Your task to perform on an android device: Open CNN.com Image 0: 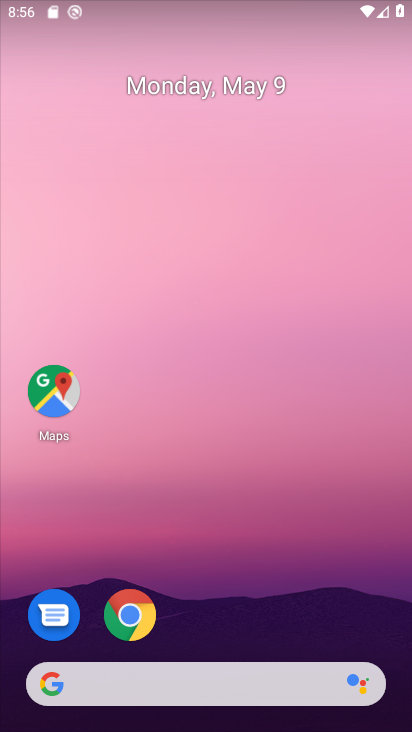
Step 0: drag from (277, 697) to (314, 229)
Your task to perform on an android device: Open CNN.com Image 1: 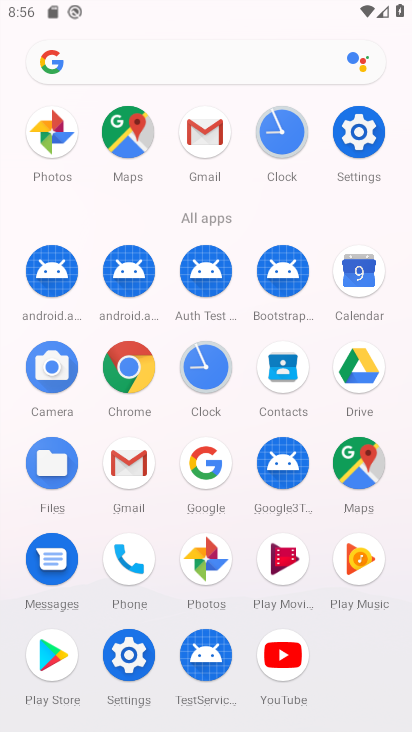
Step 1: click (134, 368)
Your task to perform on an android device: Open CNN.com Image 2: 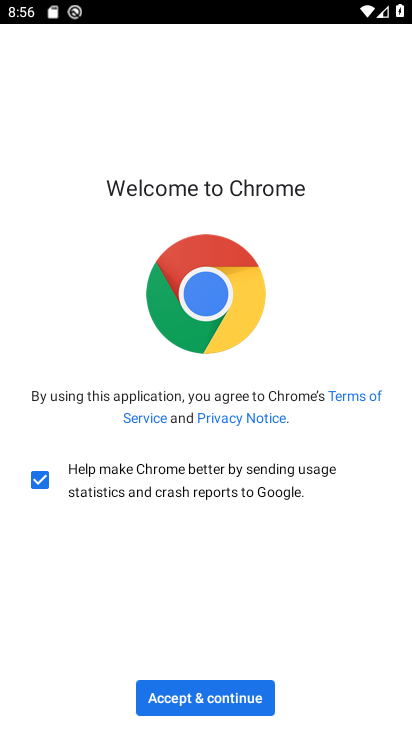
Step 2: click (182, 719)
Your task to perform on an android device: Open CNN.com Image 3: 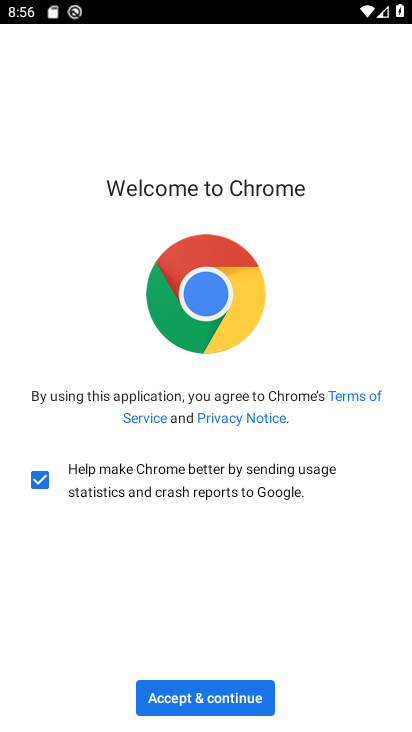
Step 3: click (198, 697)
Your task to perform on an android device: Open CNN.com Image 4: 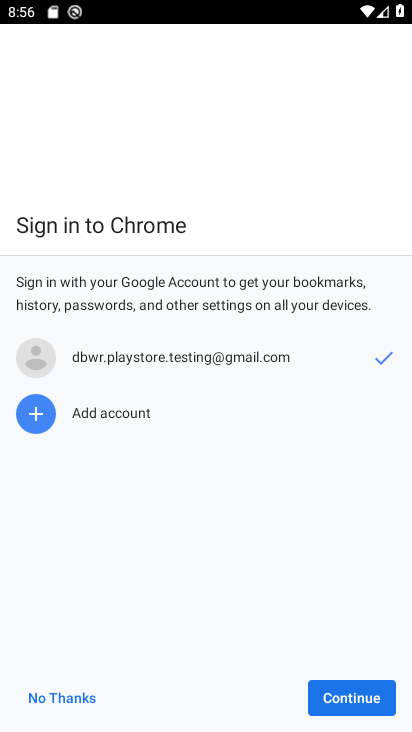
Step 4: click (338, 699)
Your task to perform on an android device: Open CNN.com Image 5: 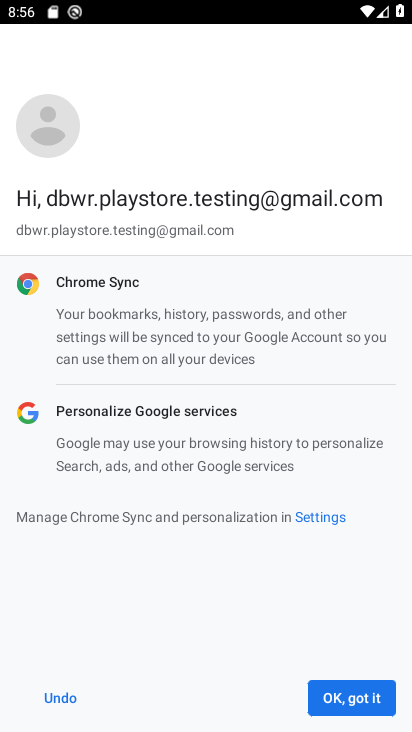
Step 5: click (344, 698)
Your task to perform on an android device: Open CNN.com Image 6: 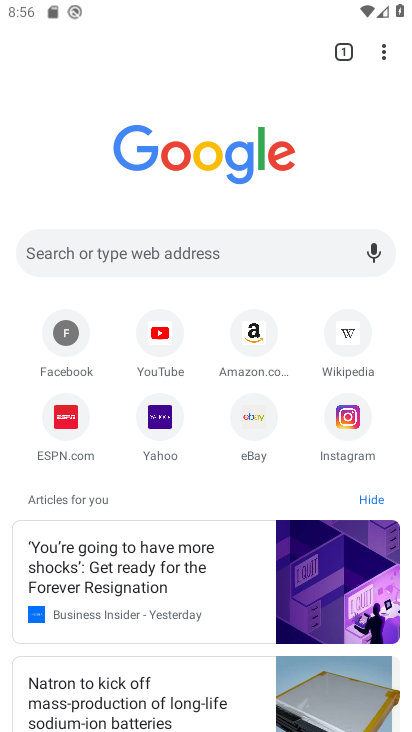
Step 6: click (145, 253)
Your task to perform on an android device: Open CNN.com Image 7: 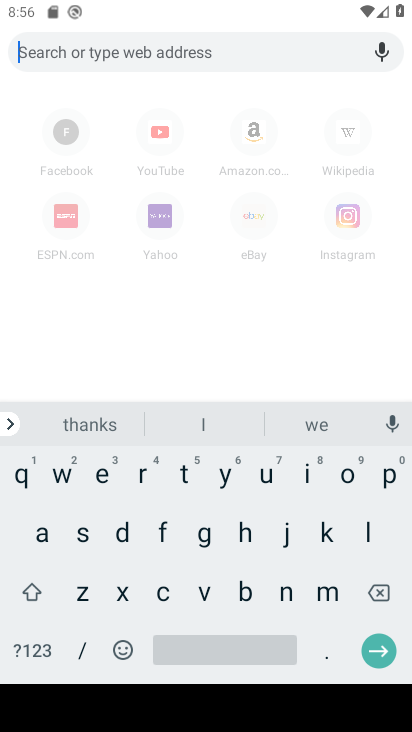
Step 7: click (162, 591)
Your task to perform on an android device: Open CNN.com Image 8: 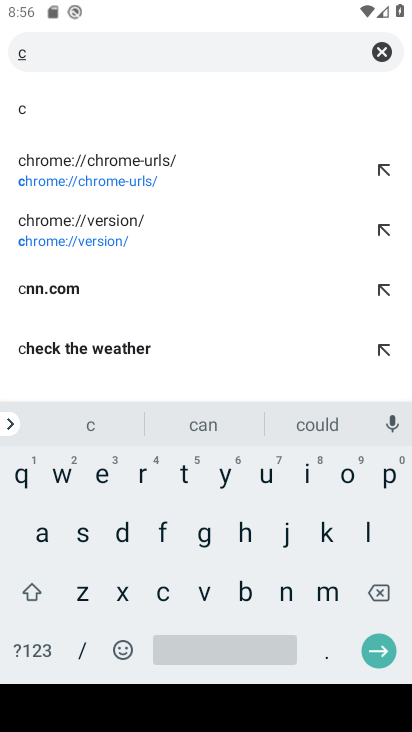
Step 8: click (291, 600)
Your task to perform on an android device: Open CNN.com Image 9: 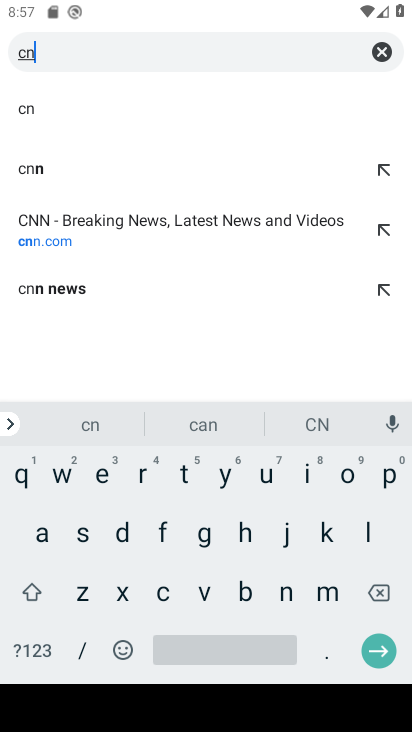
Step 9: click (73, 228)
Your task to perform on an android device: Open CNN.com Image 10: 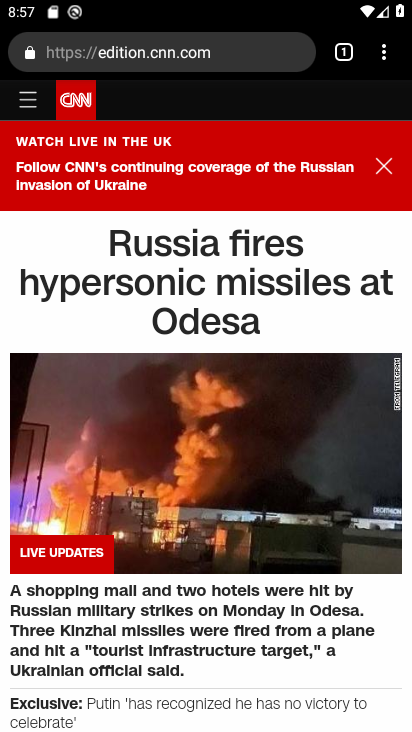
Step 10: task complete